Your task to perform on an android device: What's the weather today? Image 0: 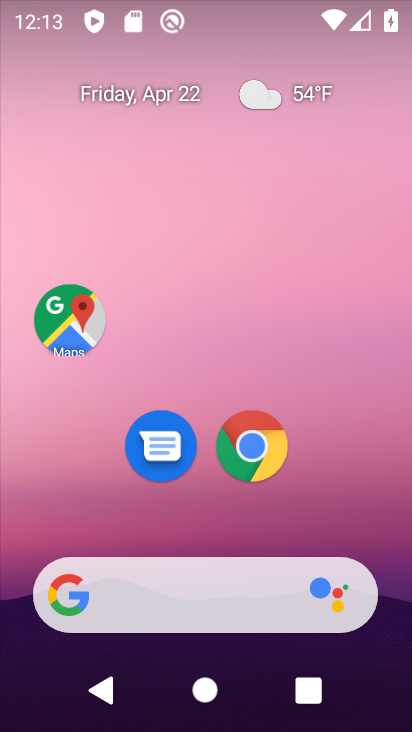
Step 0: drag from (395, 532) to (284, 24)
Your task to perform on an android device: What's the weather today? Image 1: 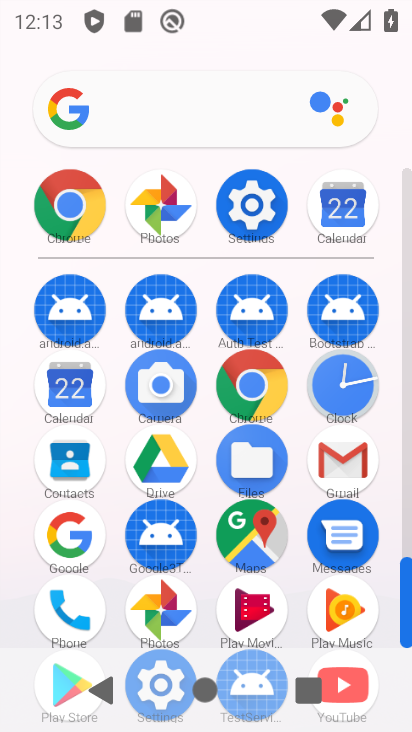
Step 1: click (79, 213)
Your task to perform on an android device: What's the weather today? Image 2: 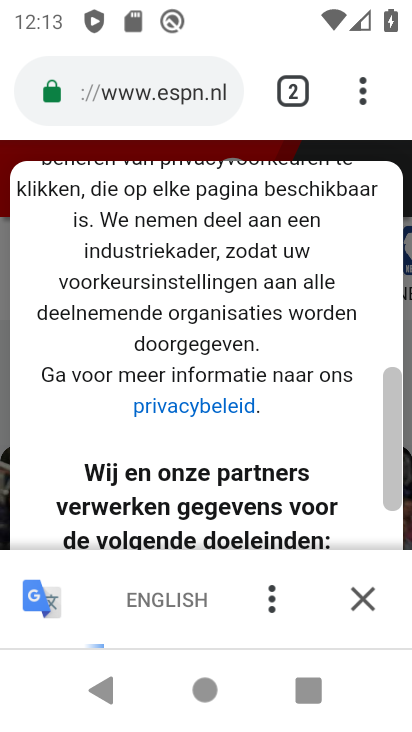
Step 2: click (176, 97)
Your task to perform on an android device: What's the weather today? Image 3: 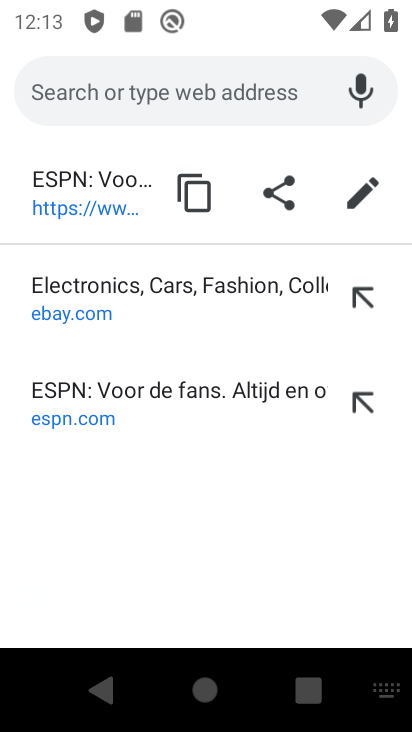
Step 3: type "What's the weather today?"
Your task to perform on an android device: What's the weather today? Image 4: 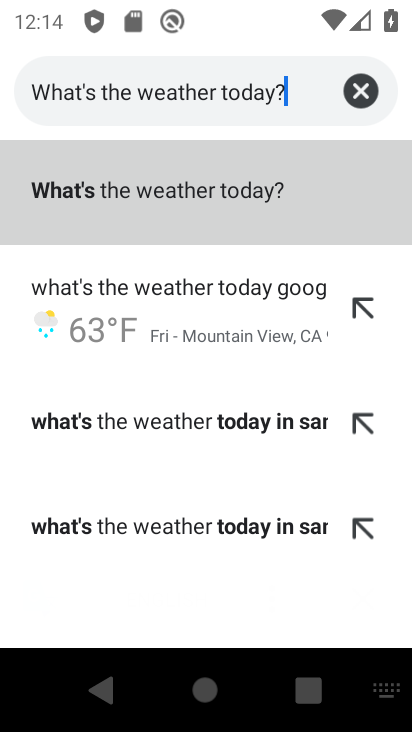
Step 4: click (240, 170)
Your task to perform on an android device: What's the weather today? Image 5: 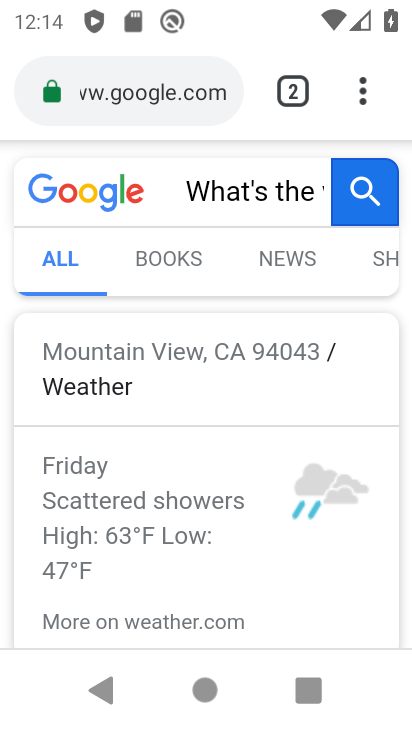
Step 5: task complete